Your task to perform on an android device: set an alarm Image 0: 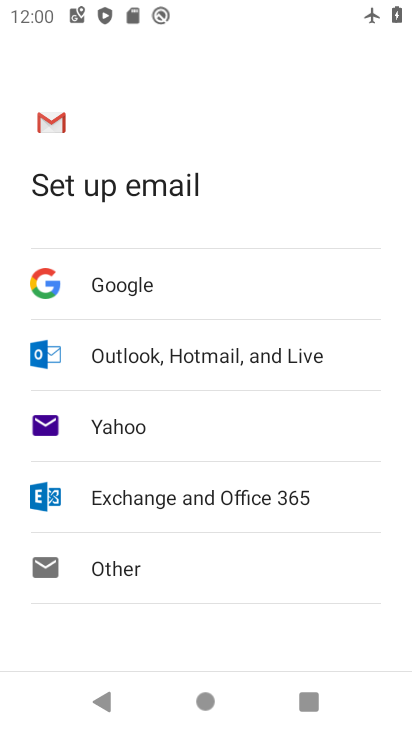
Step 0: press home button
Your task to perform on an android device: set an alarm Image 1: 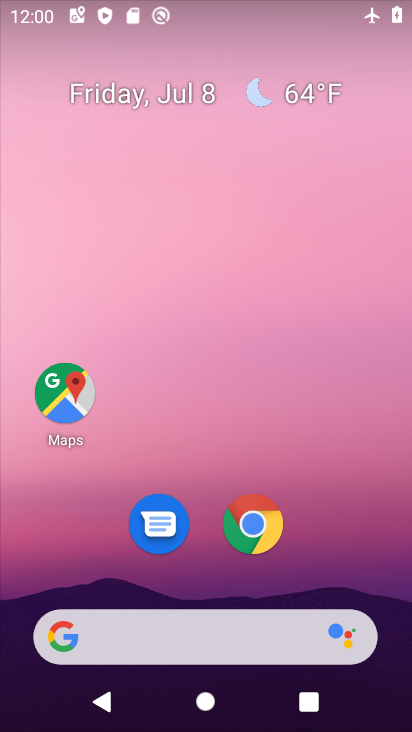
Step 1: drag from (276, 489) to (234, 57)
Your task to perform on an android device: set an alarm Image 2: 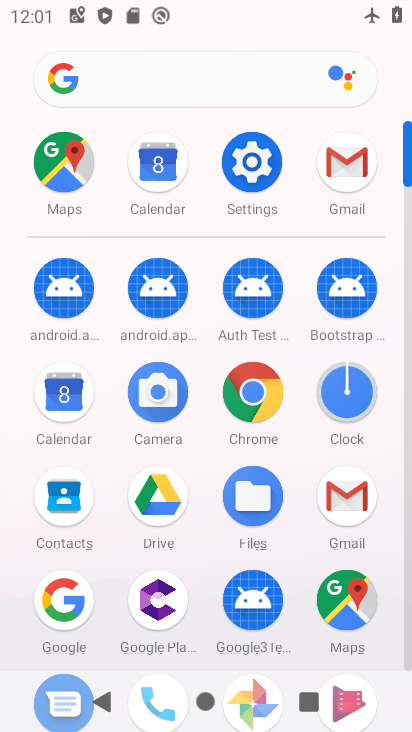
Step 2: click (355, 394)
Your task to perform on an android device: set an alarm Image 3: 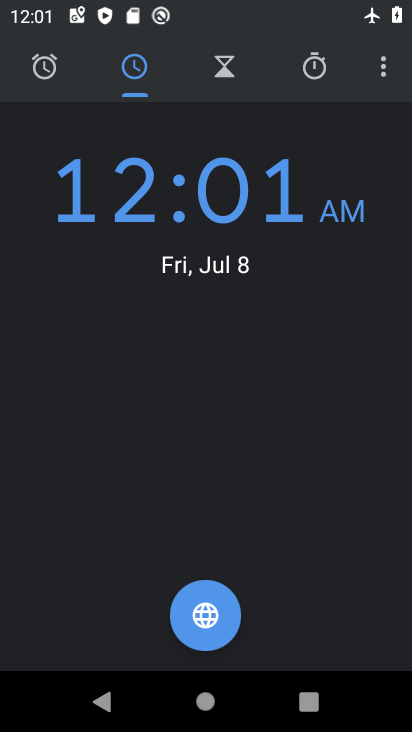
Step 3: click (49, 72)
Your task to perform on an android device: set an alarm Image 4: 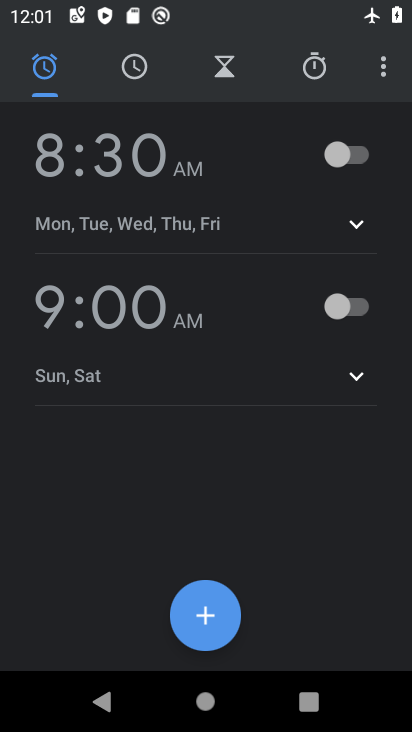
Step 4: click (219, 613)
Your task to perform on an android device: set an alarm Image 5: 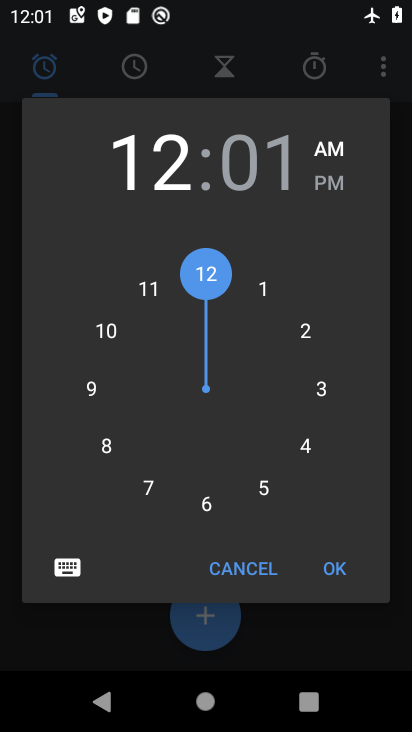
Step 5: click (259, 187)
Your task to perform on an android device: set an alarm Image 6: 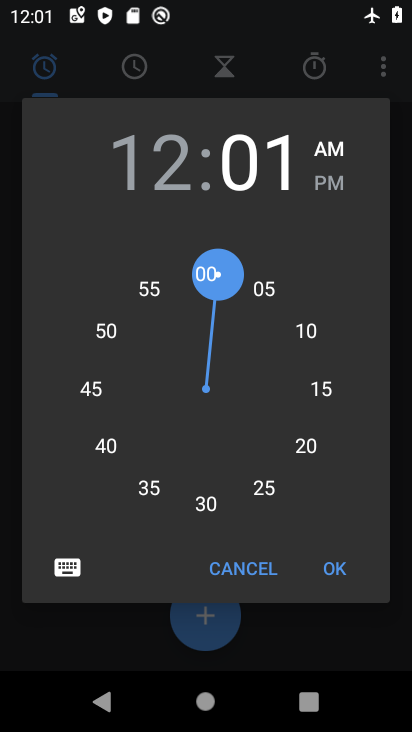
Step 6: click (208, 270)
Your task to perform on an android device: set an alarm Image 7: 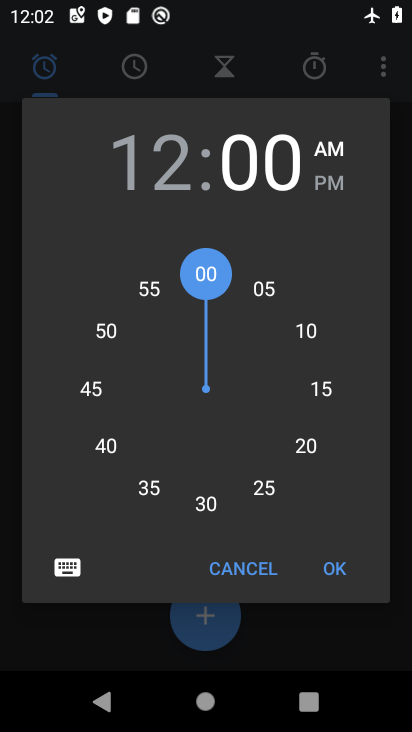
Step 7: click (331, 569)
Your task to perform on an android device: set an alarm Image 8: 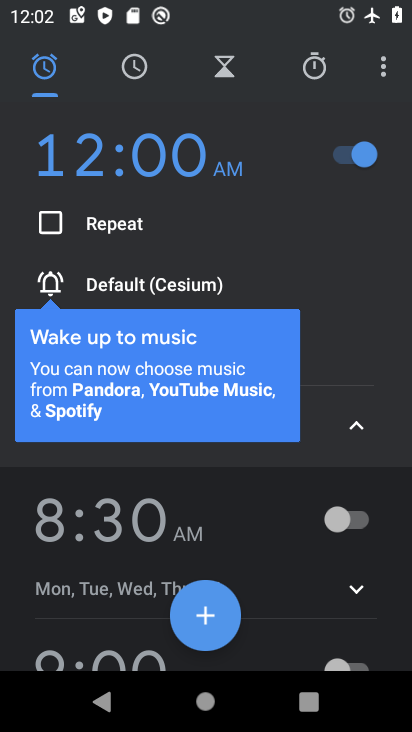
Step 8: task complete